Your task to perform on an android device: Go to accessibility settings Image 0: 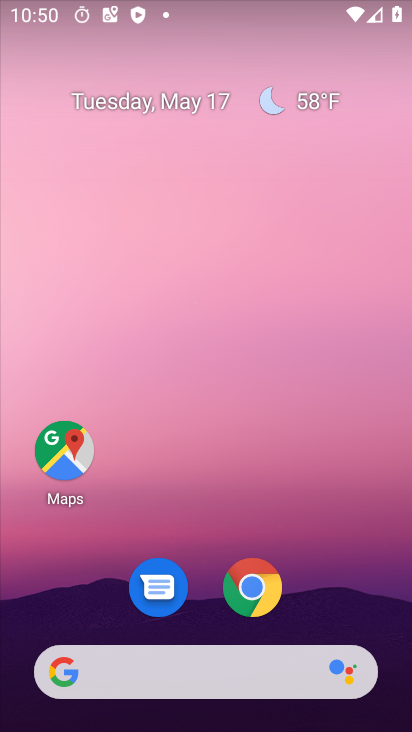
Step 0: drag from (341, 595) to (280, 117)
Your task to perform on an android device: Go to accessibility settings Image 1: 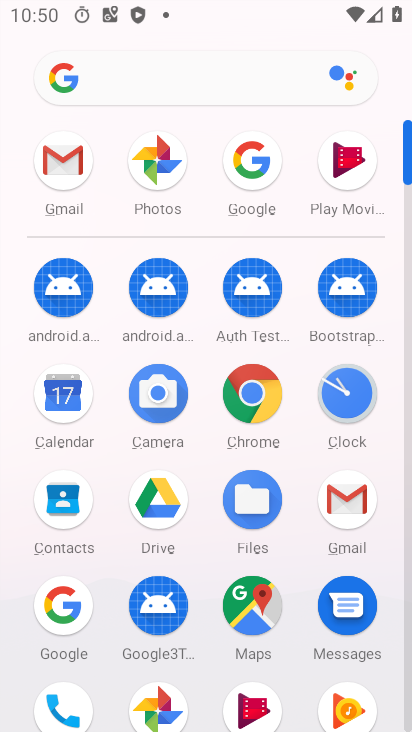
Step 1: drag from (114, 566) to (119, 365)
Your task to perform on an android device: Go to accessibility settings Image 2: 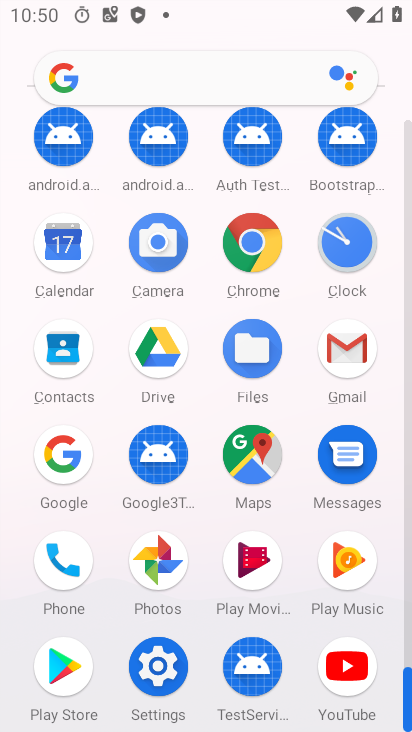
Step 2: click (160, 664)
Your task to perform on an android device: Go to accessibility settings Image 3: 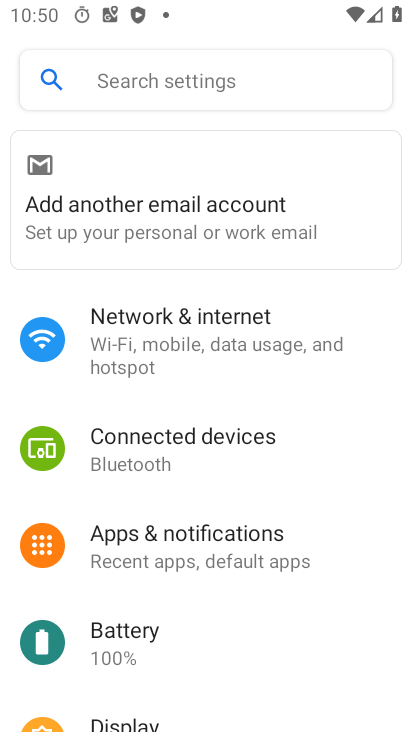
Step 3: drag from (175, 518) to (207, 438)
Your task to perform on an android device: Go to accessibility settings Image 4: 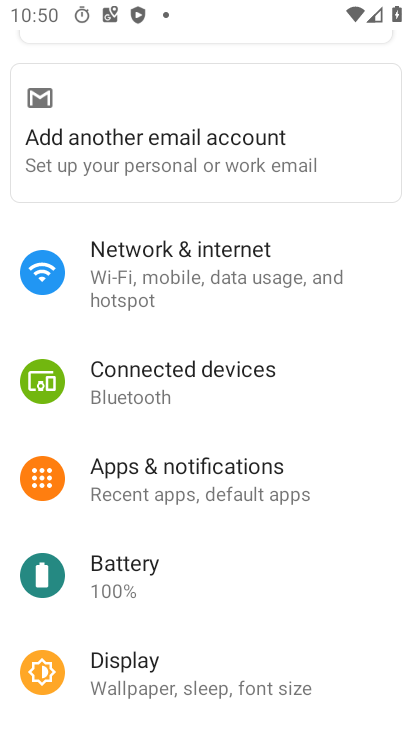
Step 4: drag from (161, 536) to (207, 463)
Your task to perform on an android device: Go to accessibility settings Image 5: 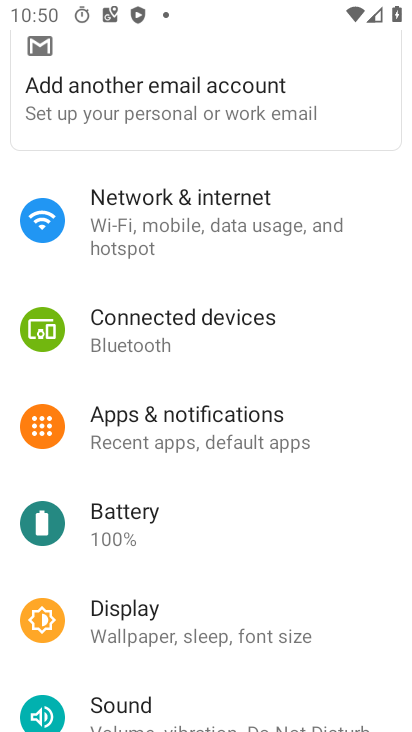
Step 5: drag from (134, 570) to (217, 438)
Your task to perform on an android device: Go to accessibility settings Image 6: 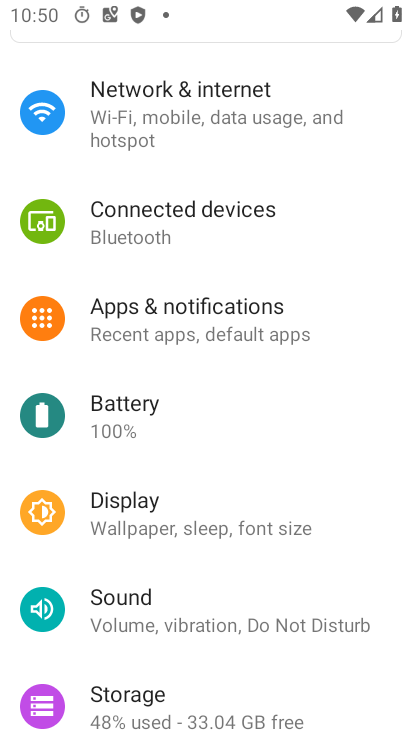
Step 6: drag from (135, 578) to (207, 461)
Your task to perform on an android device: Go to accessibility settings Image 7: 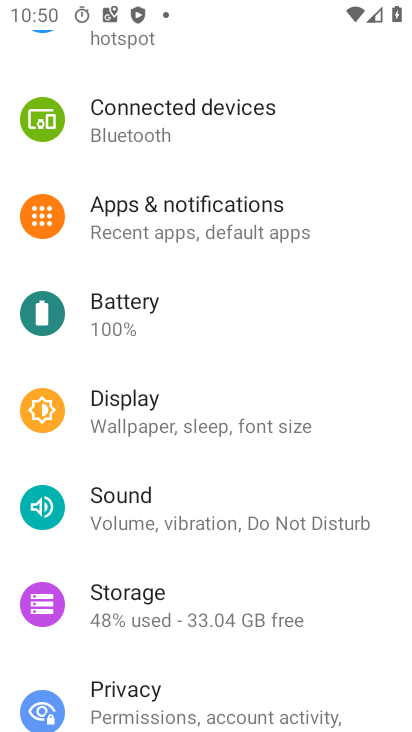
Step 7: drag from (132, 563) to (231, 416)
Your task to perform on an android device: Go to accessibility settings Image 8: 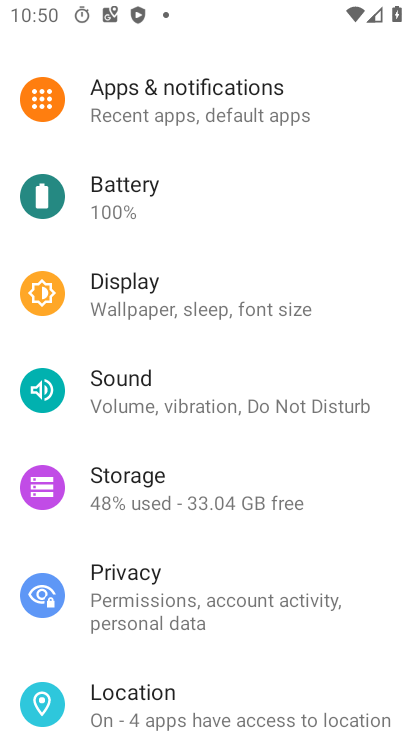
Step 8: drag from (125, 532) to (232, 403)
Your task to perform on an android device: Go to accessibility settings Image 9: 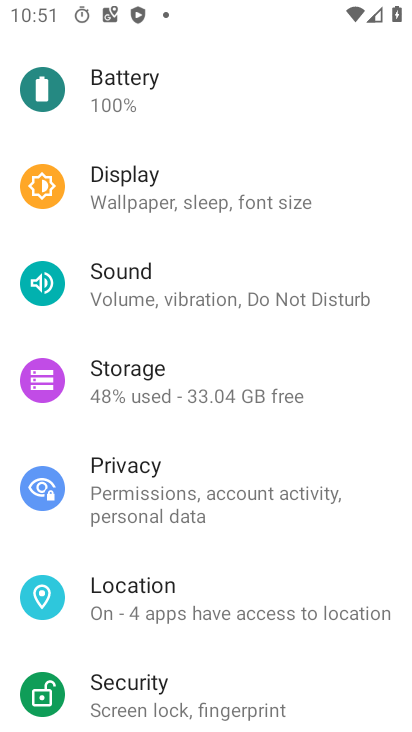
Step 9: drag from (111, 560) to (238, 420)
Your task to perform on an android device: Go to accessibility settings Image 10: 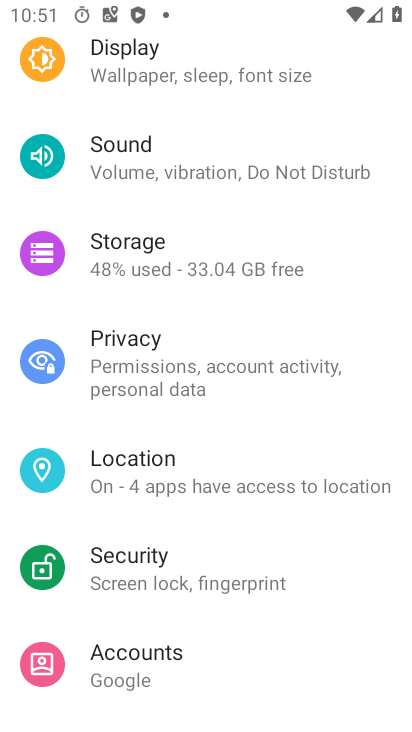
Step 10: drag from (252, 539) to (318, 432)
Your task to perform on an android device: Go to accessibility settings Image 11: 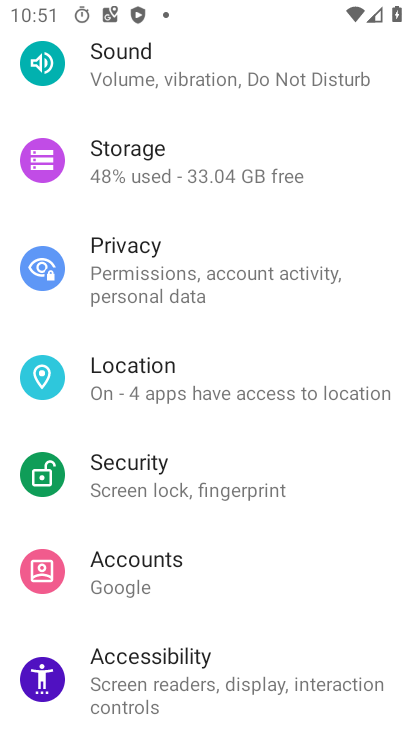
Step 11: drag from (214, 565) to (270, 488)
Your task to perform on an android device: Go to accessibility settings Image 12: 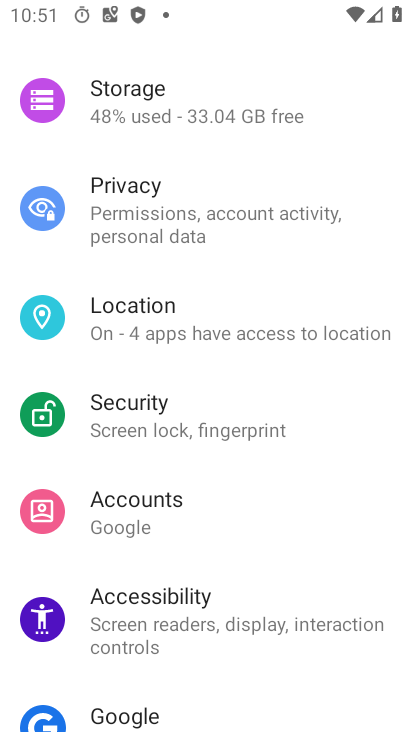
Step 12: click (175, 589)
Your task to perform on an android device: Go to accessibility settings Image 13: 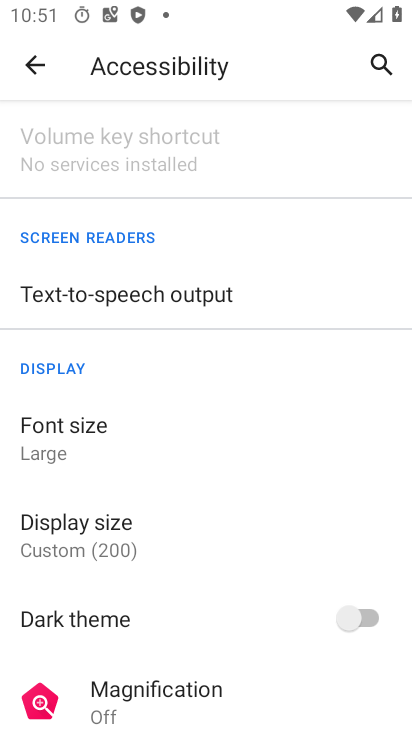
Step 13: task complete